Your task to perform on an android device: check battery use Image 0: 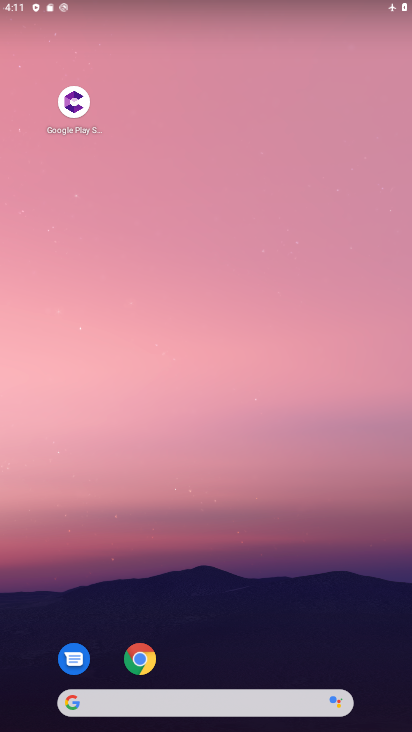
Step 0: drag from (352, 630) to (358, 217)
Your task to perform on an android device: check battery use Image 1: 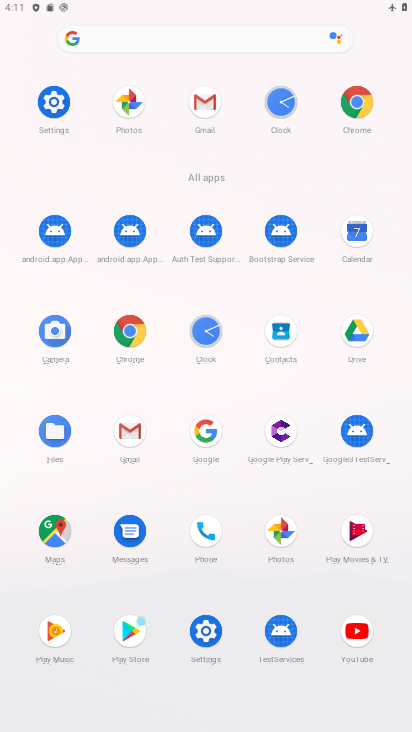
Step 1: click (206, 627)
Your task to perform on an android device: check battery use Image 2: 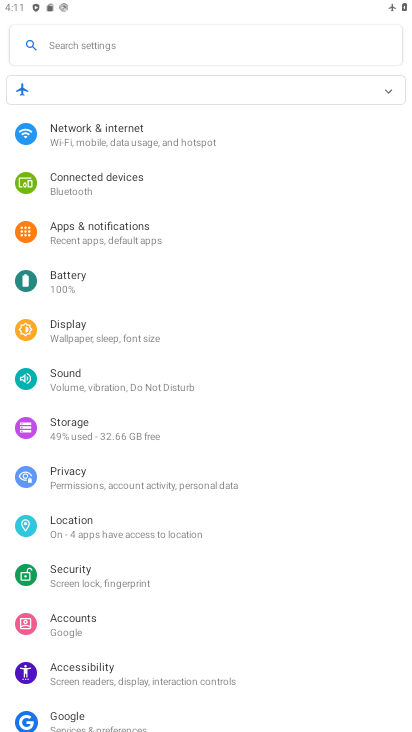
Step 2: click (91, 287)
Your task to perform on an android device: check battery use Image 3: 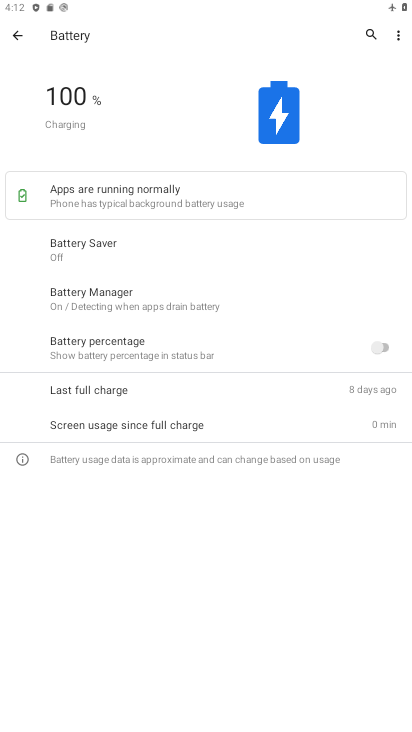
Step 3: click (395, 36)
Your task to perform on an android device: check battery use Image 4: 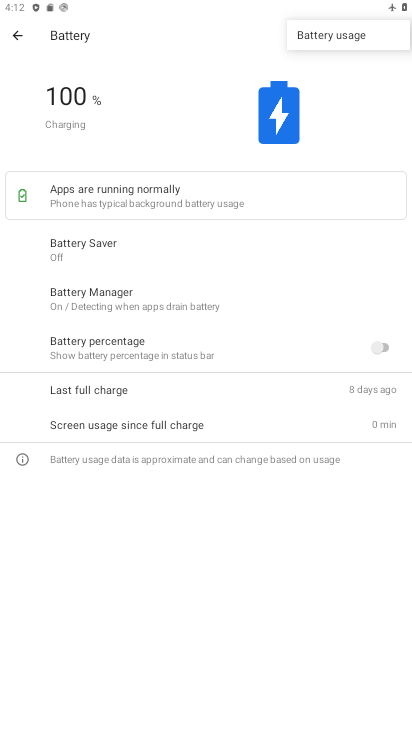
Step 4: click (356, 38)
Your task to perform on an android device: check battery use Image 5: 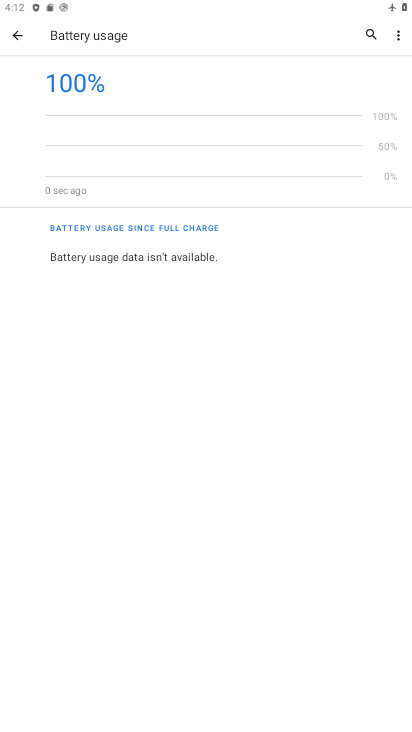
Step 5: task complete